Your task to perform on an android device: Open CNN.com Image 0: 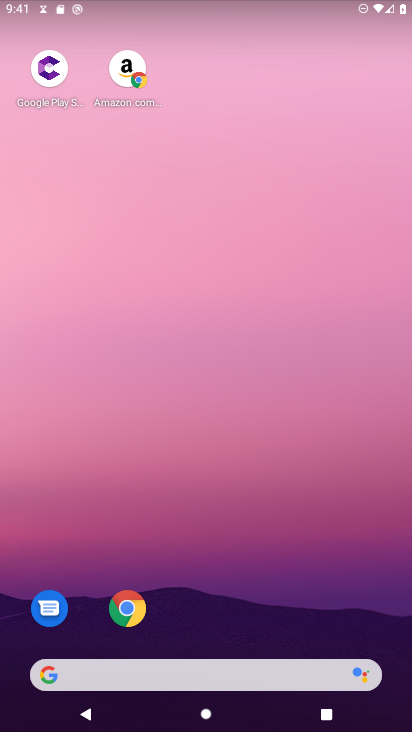
Step 0: click (125, 609)
Your task to perform on an android device: Open CNN.com Image 1: 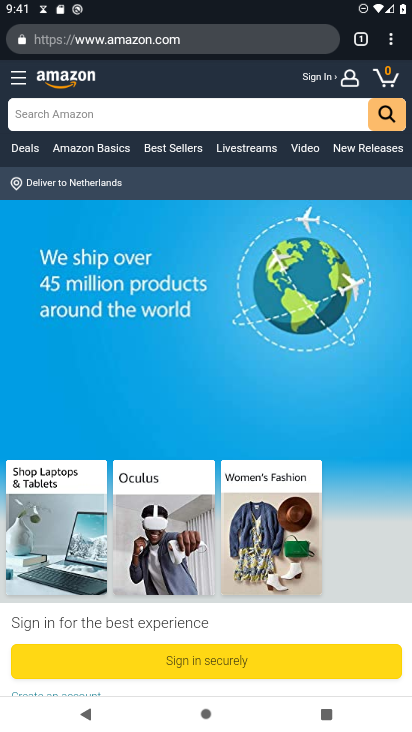
Step 1: click (247, 41)
Your task to perform on an android device: Open CNN.com Image 2: 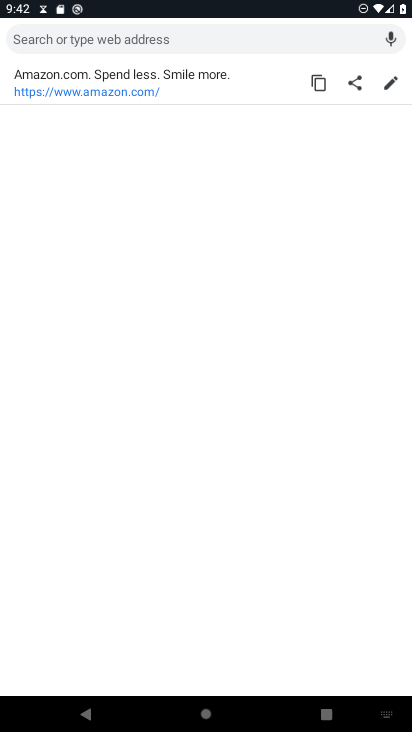
Step 2: type "CNN.com"
Your task to perform on an android device: Open CNN.com Image 3: 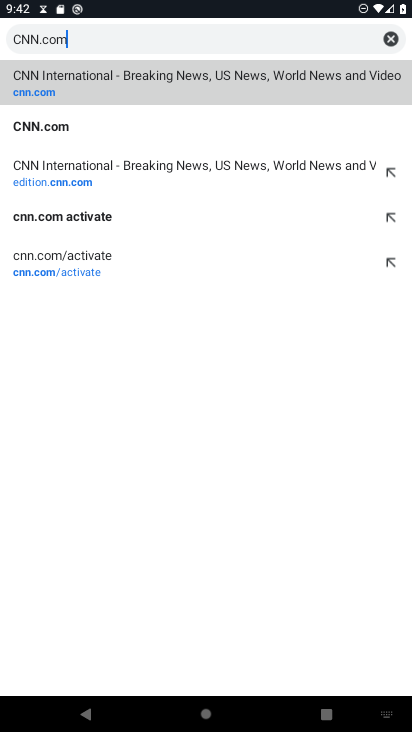
Step 3: click (111, 132)
Your task to perform on an android device: Open CNN.com Image 4: 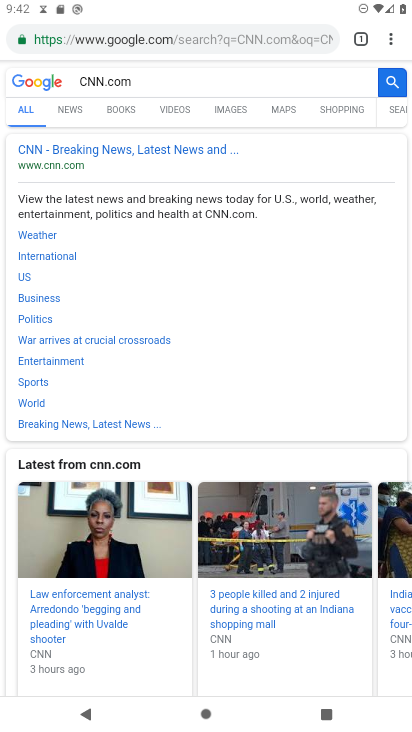
Step 4: click (147, 159)
Your task to perform on an android device: Open CNN.com Image 5: 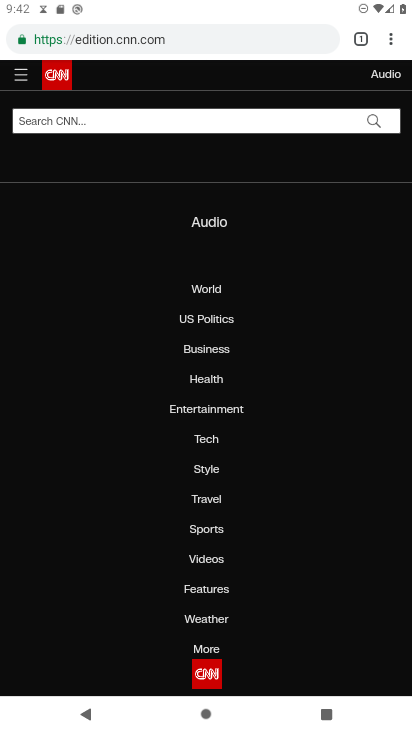
Step 5: task complete